Your task to perform on an android device: uninstall "Booking.com: Hotels and more" Image 0: 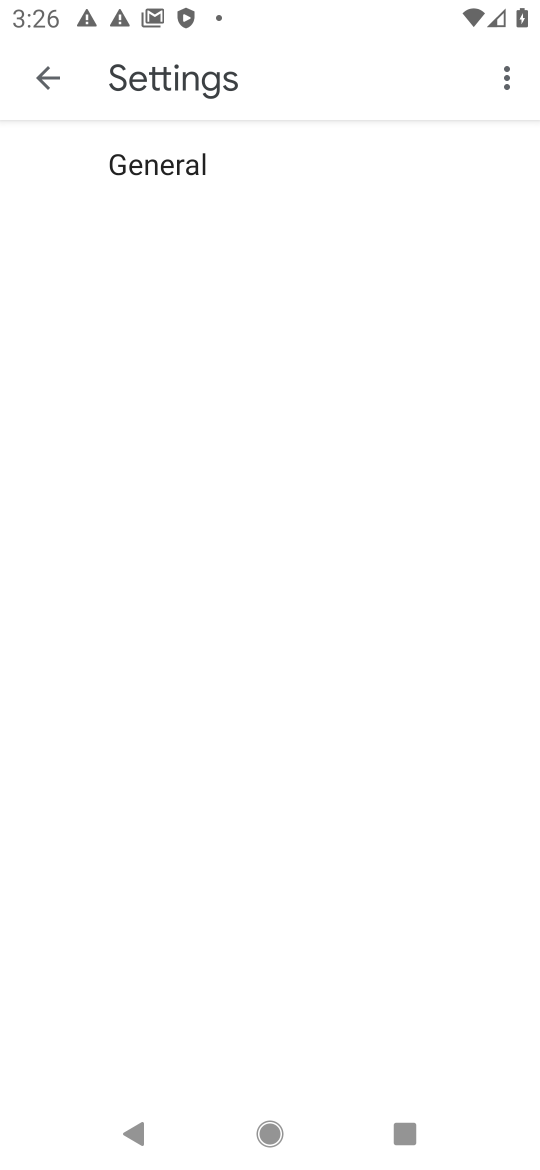
Step 0: press home button
Your task to perform on an android device: uninstall "Booking.com: Hotels and more" Image 1: 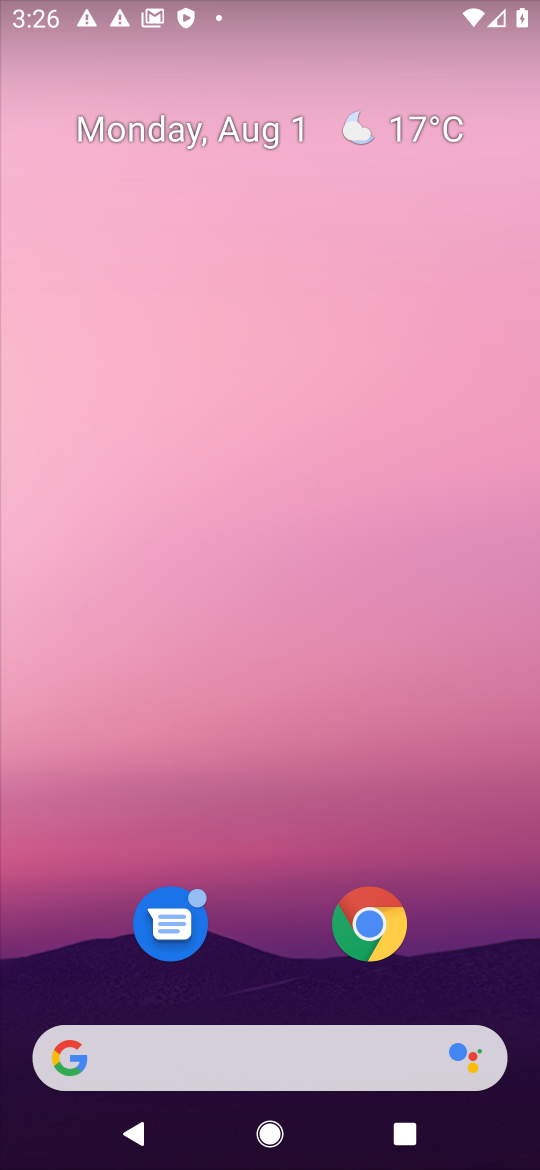
Step 1: drag from (289, 1152) to (295, 5)
Your task to perform on an android device: uninstall "Booking.com: Hotels and more" Image 2: 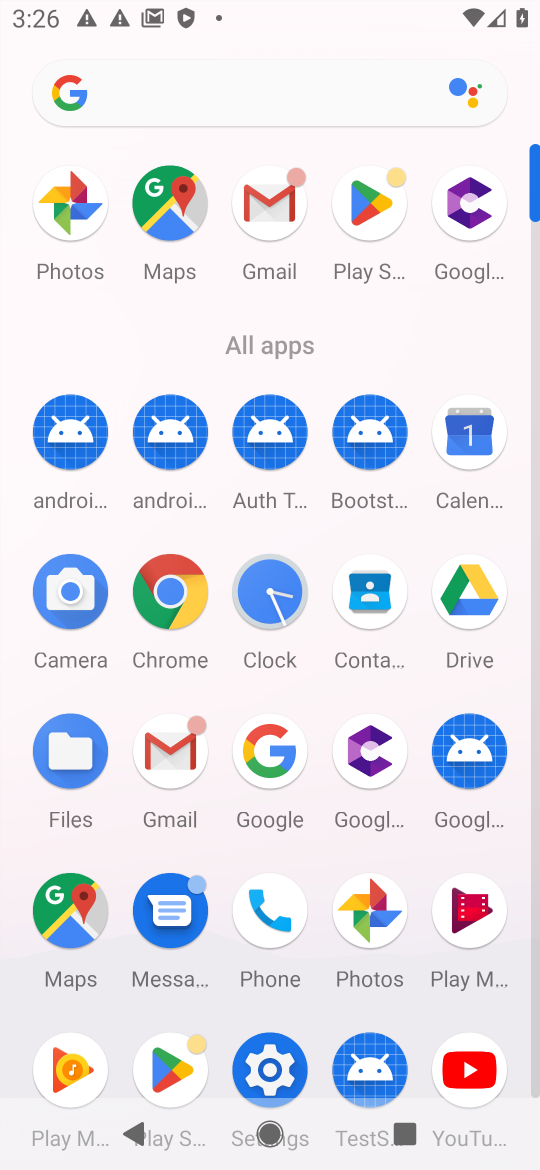
Step 2: click (175, 1073)
Your task to perform on an android device: uninstall "Booking.com: Hotels and more" Image 3: 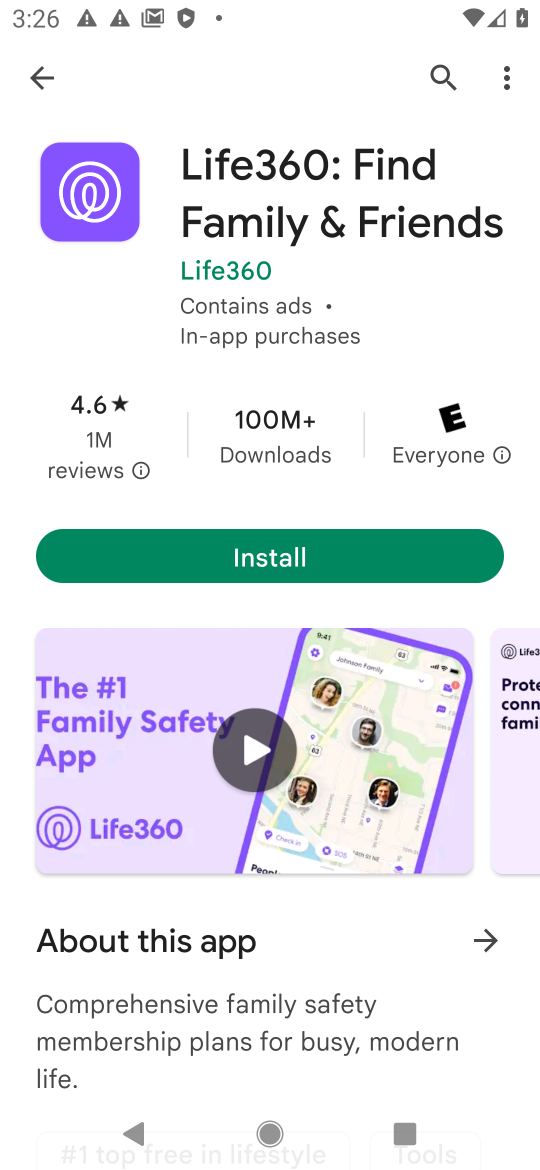
Step 3: click (444, 57)
Your task to perform on an android device: uninstall "Booking.com: Hotels and more" Image 4: 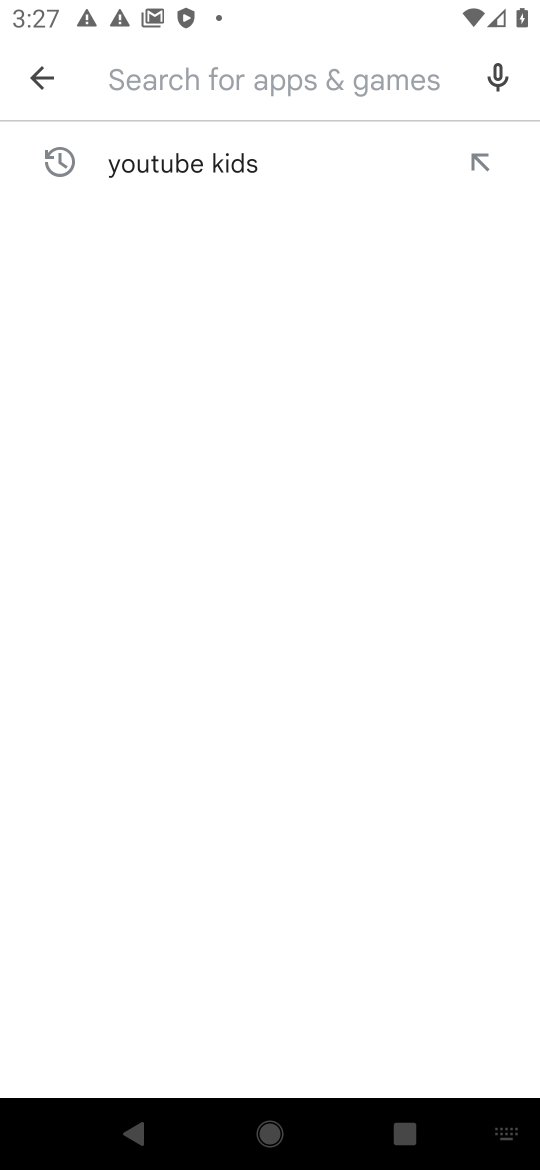
Step 4: type "Booking.com: Hotels and more"
Your task to perform on an android device: uninstall "Booking.com: Hotels and more" Image 5: 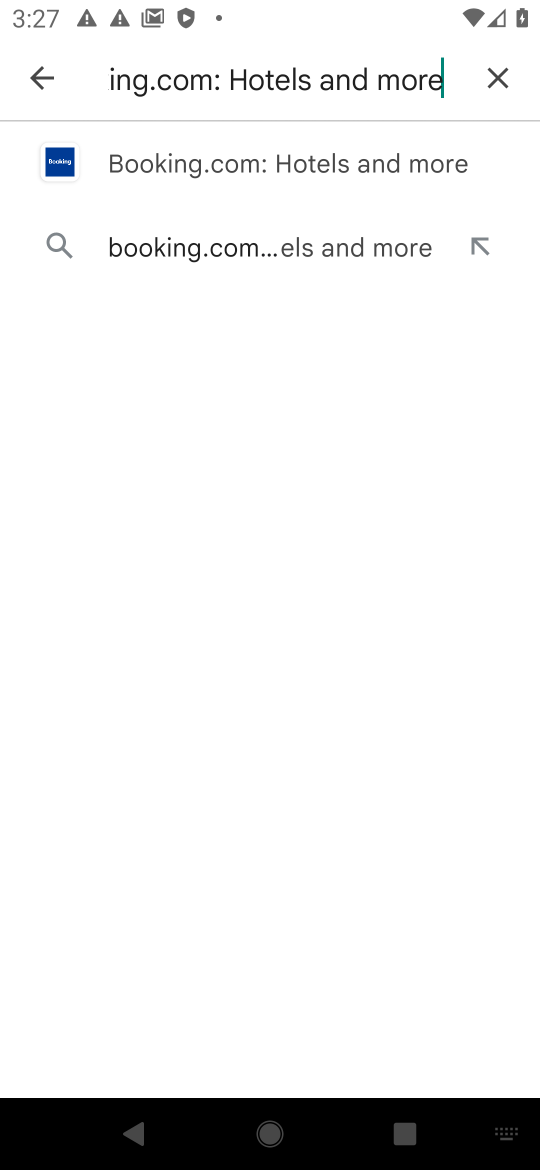
Step 5: click (283, 163)
Your task to perform on an android device: uninstall "Booking.com: Hotels and more" Image 6: 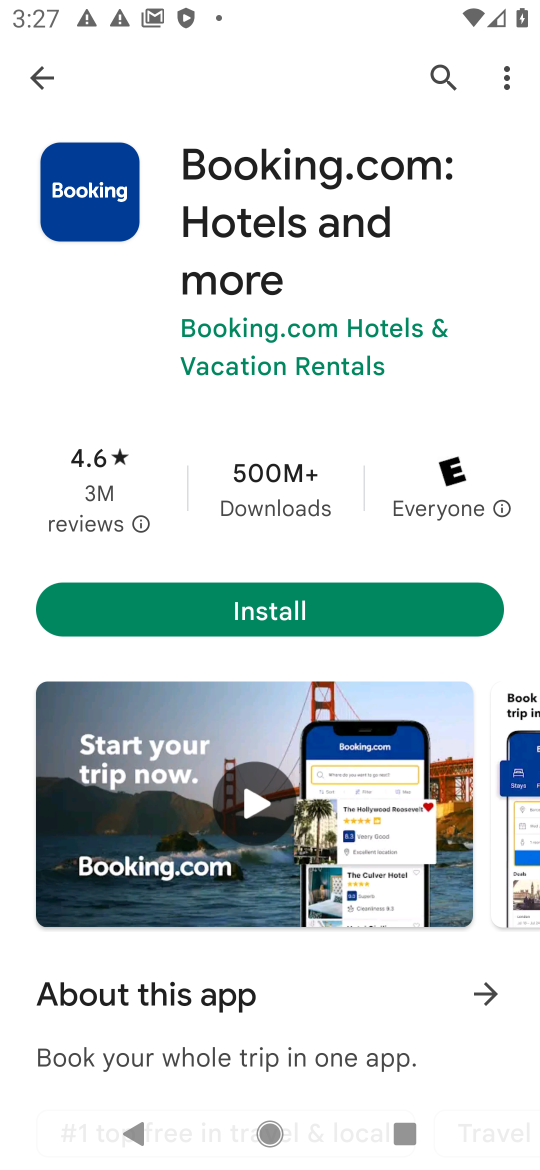
Step 6: task complete